Your task to perform on an android device: turn notification dots off Image 0: 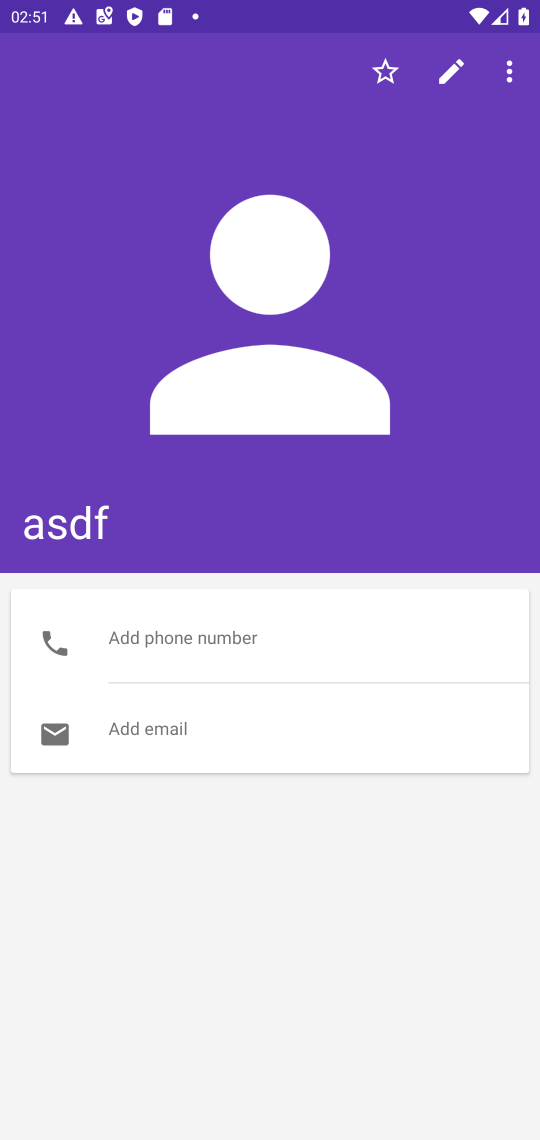
Step 0: press home button
Your task to perform on an android device: turn notification dots off Image 1: 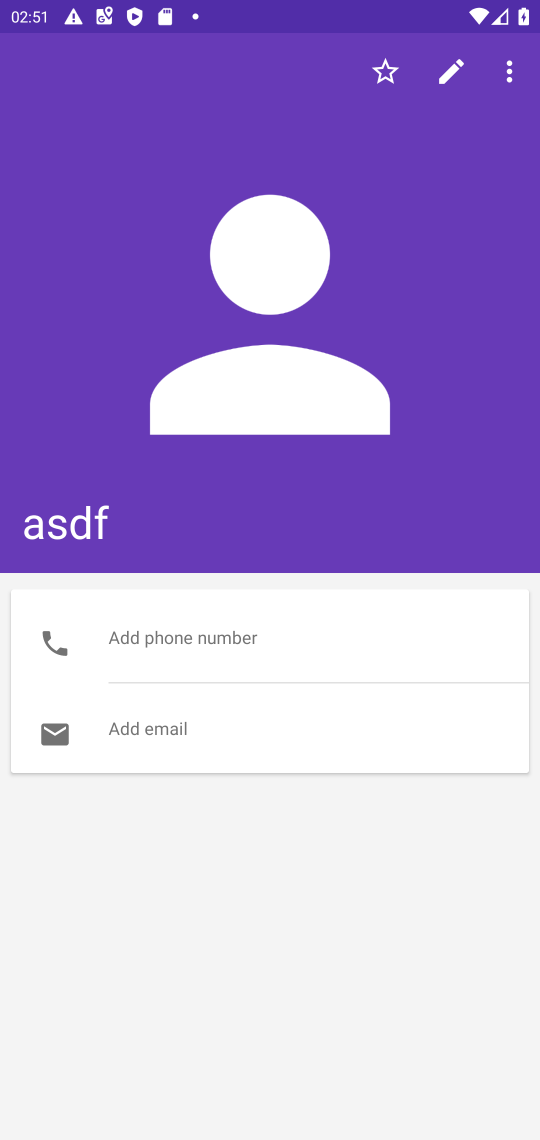
Step 1: press home button
Your task to perform on an android device: turn notification dots off Image 2: 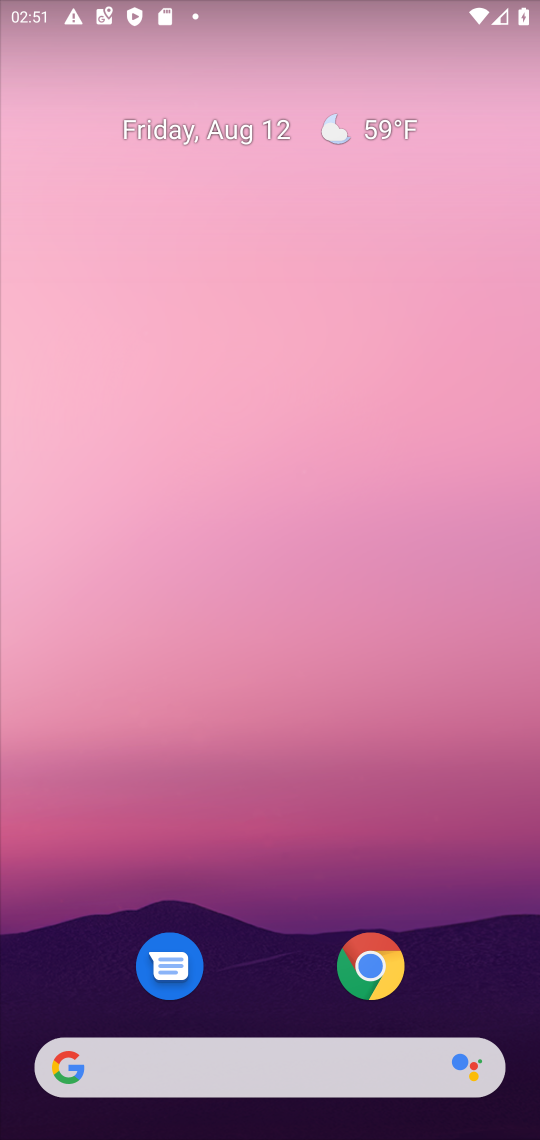
Step 2: drag from (253, 940) to (322, 86)
Your task to perform on an android device: turn notification dots off Image 3: 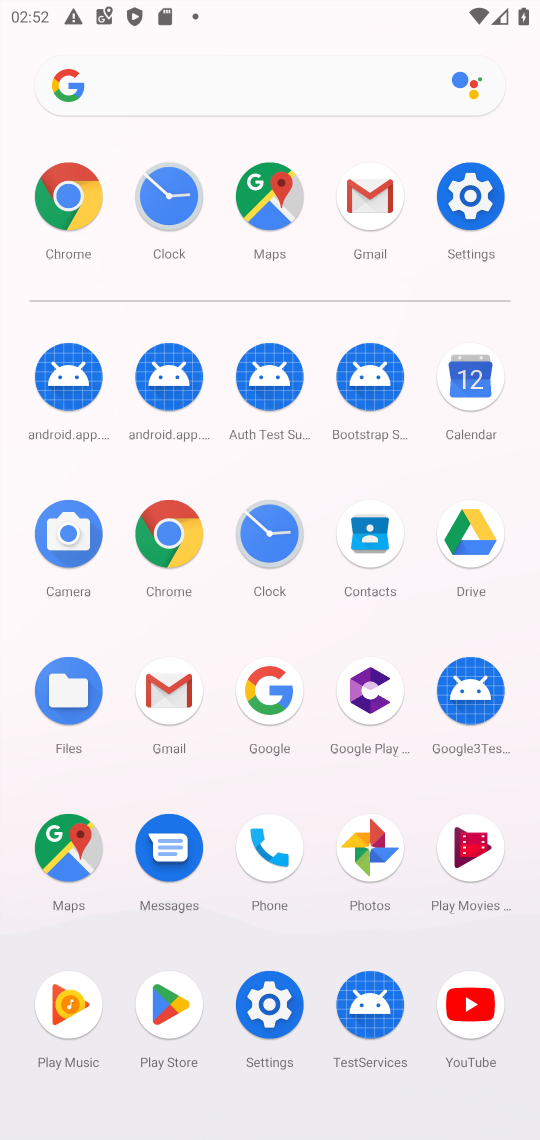
Step 3: click (266, 988)
Your task to perform on an android device: turn notification dots off Image 4: 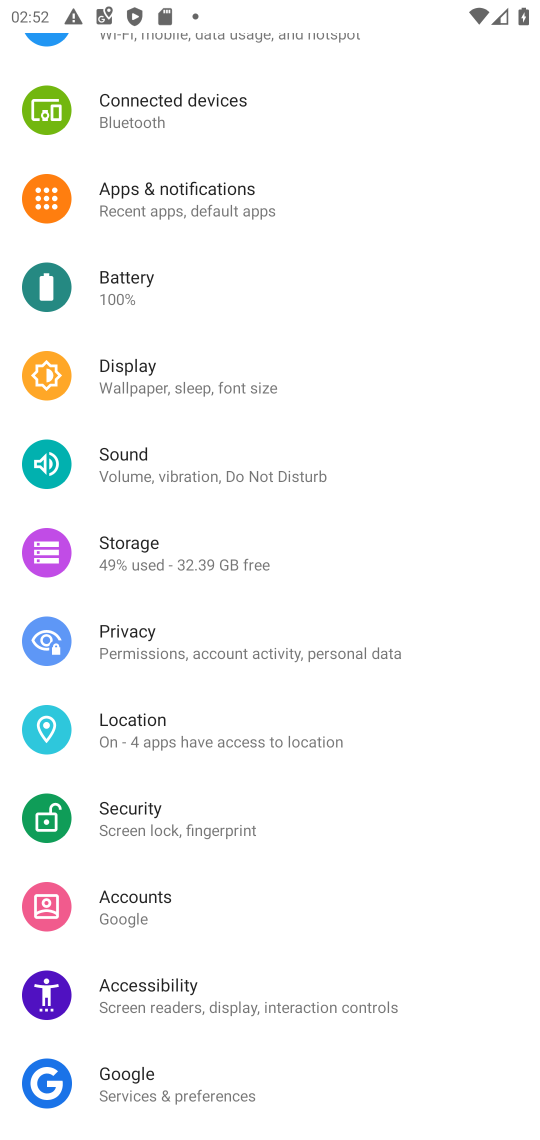
Step 4: click (240, 183)
Your task to perform on an android device: turn notification dots off Image 5: 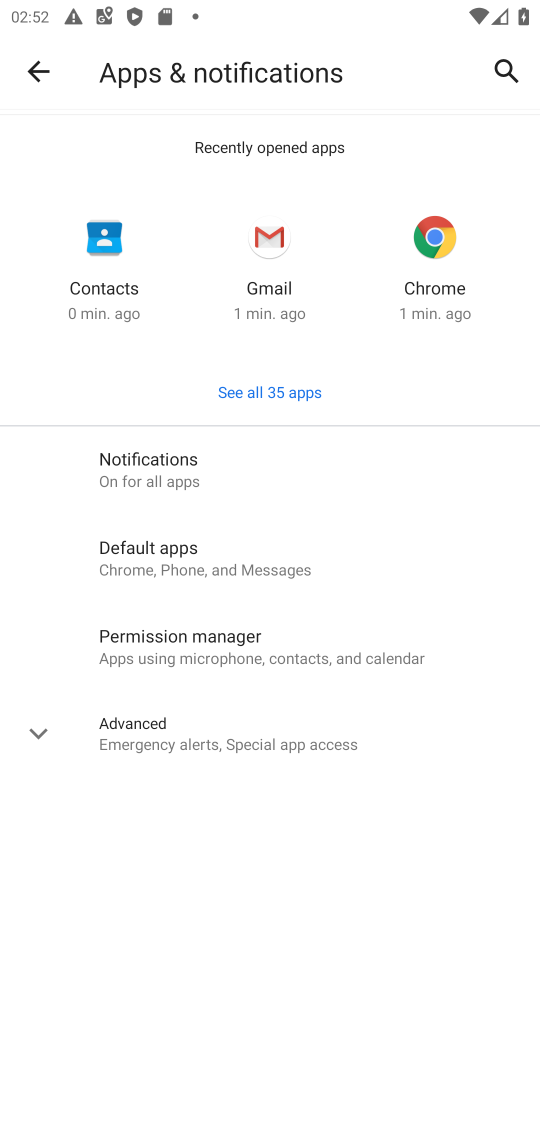
Step 5: click (148, 459)
Your task to perform on an android device: turn notification dots off Image 6: 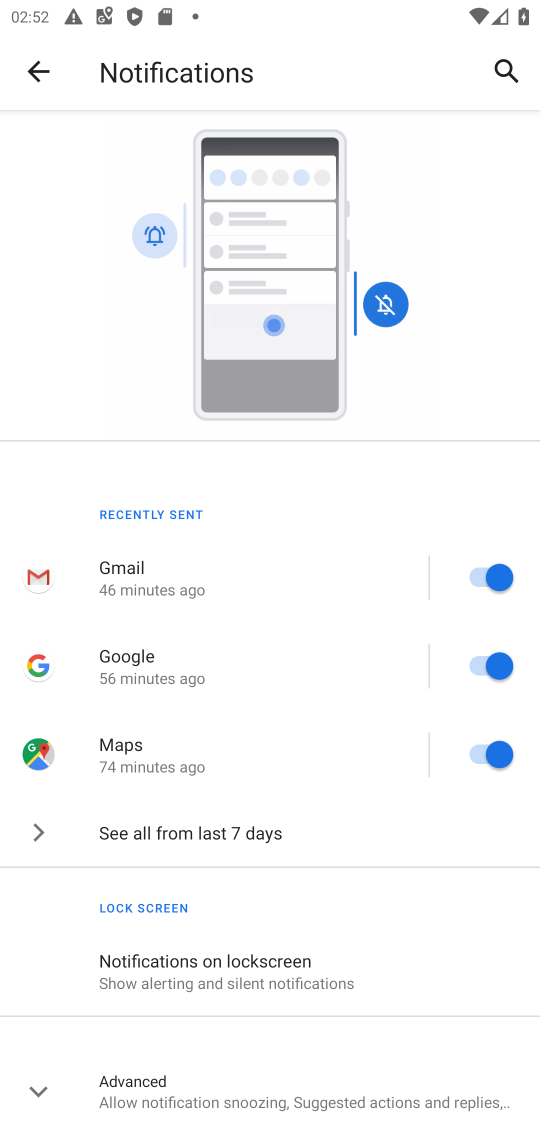
Step 6: drag from (321, 993) to (370, 128)
Your task to perform on an android device: turn notification dots off Image 7: 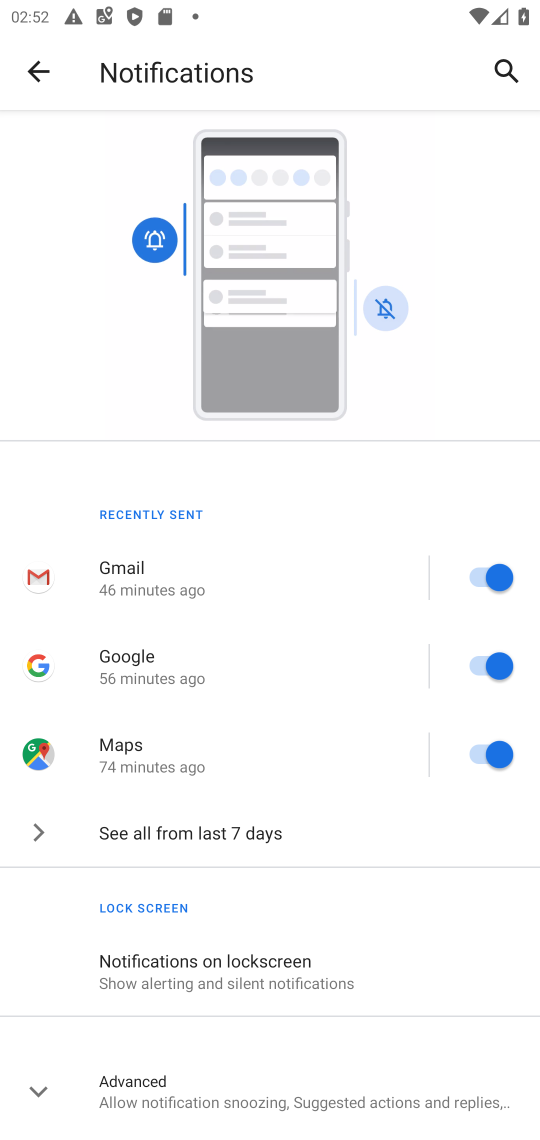
Step 7: click (180, 1097)
Your task to perform on an android device: turn notification dots off Image 8: 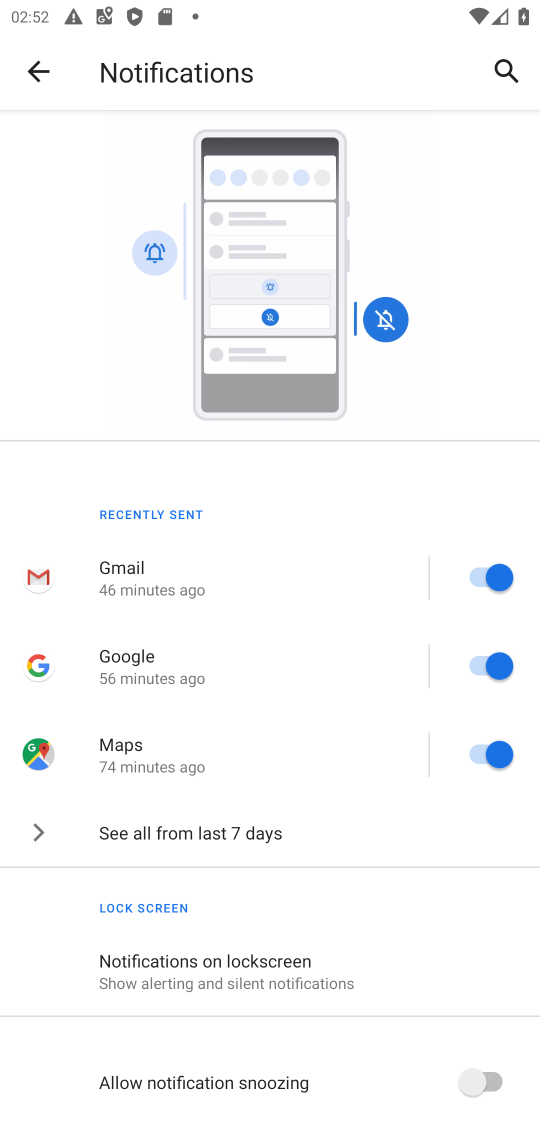
Step 8: task complete